Your task to perform on an android device: Clear all items from cart on newegg. Search for sony triple a on newegg, select the first entry, and add it to the cart. Image 0: 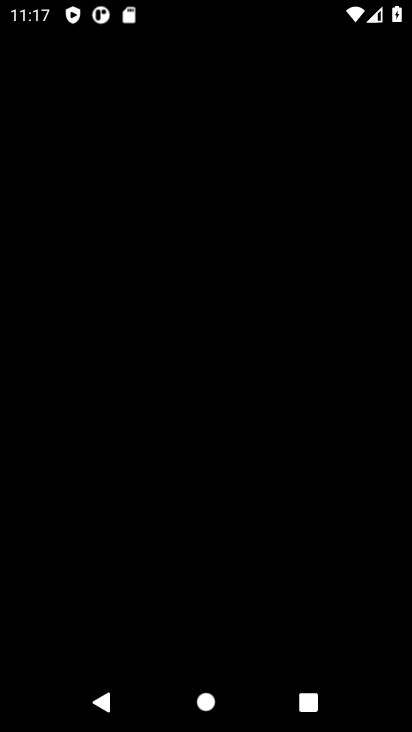
Step 0: press home button
Your task to perform on an android device: Clear all items from cart on newegg. Search for sony triple a on newegg, select the first entry, and add it to the cart. Image 1: 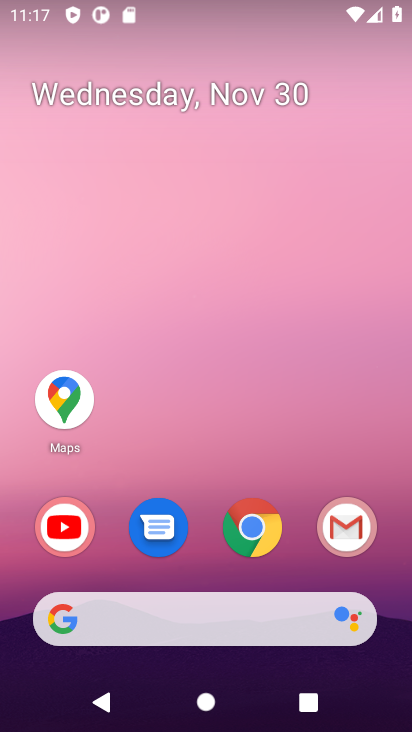
Step 1: click (258, 530)
Your task to perform on an android device: Clear all items from cart on newegg. Search for sony triple a on newegg, select the first entry, and add it to the cart. Image 2: 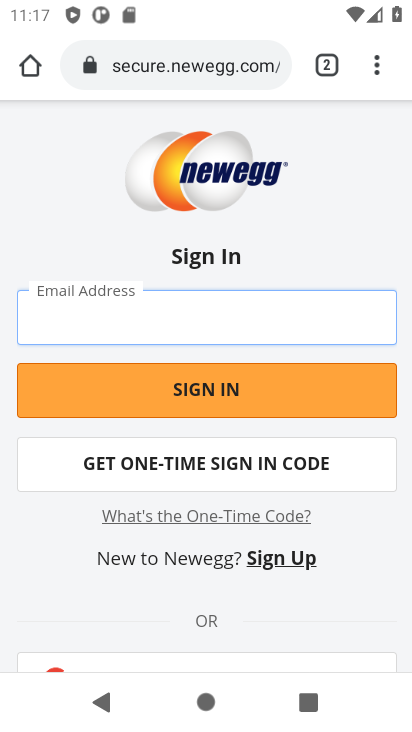
Step 2: press back button
Your task to perform on an android device: Clear all items from cart on newegg. Search for sony triple a on newegg, select the first entry, and add it to the cart. Image 3: 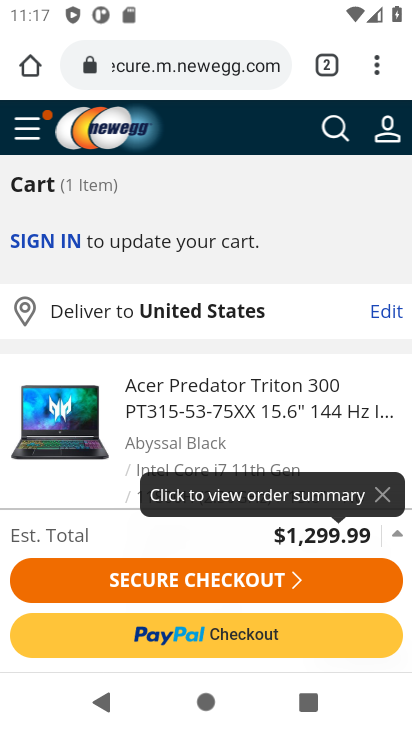
Step 3: drag from (207, 326) to (199, 194)
Your task to perform on an android device: Clear all items from cart on newegg. Search for sony triple a on newegg, select the first entry, and add it to the cart. Image 4: 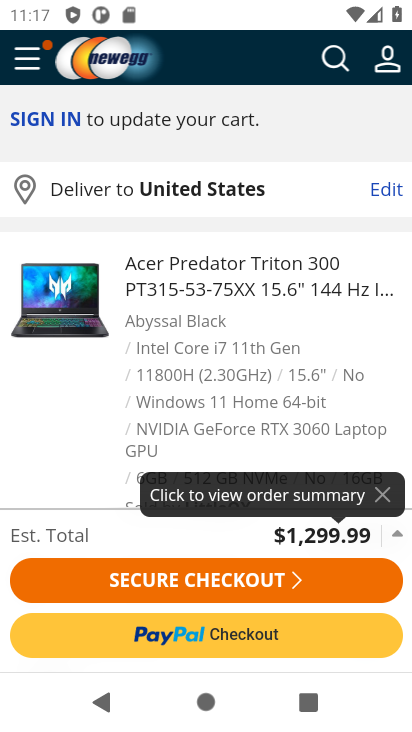
Step 4: drag from (219, 347) to (212, 183)
Your task to perform on an android device: Clear all items from cart on newegg. Search for sony triple a on newegg, select the first entry, and add it to the cart. Image 5: 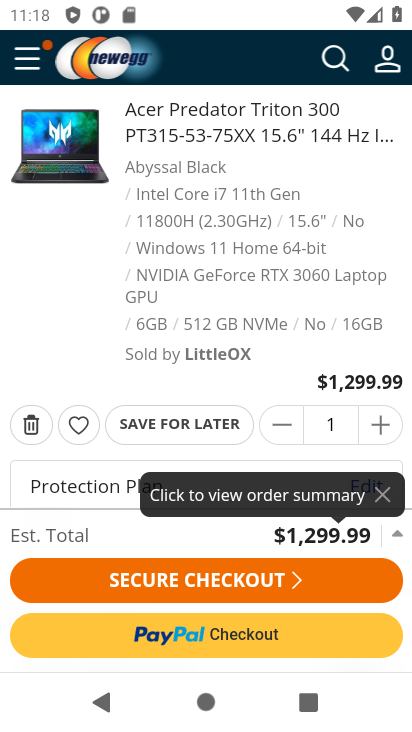
Step 5: click (29, 427)
Your task to perform on an android device: Clear all items from cart on newegg. Search for sony triple a on newegg, select the first entry, and add it to the cart. Image 6: 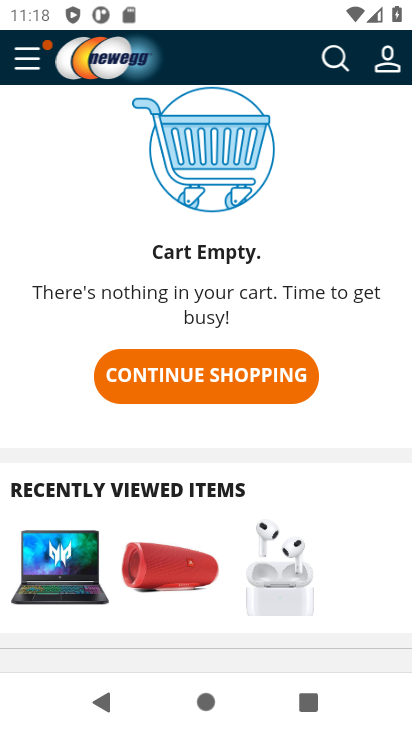
Step 6: click (333, 57)
Your task to perform on an android device: Clear all items from cart on newegg. Search for sony triple a on newegg, select the first entry, and add it to the cart. Image 7: 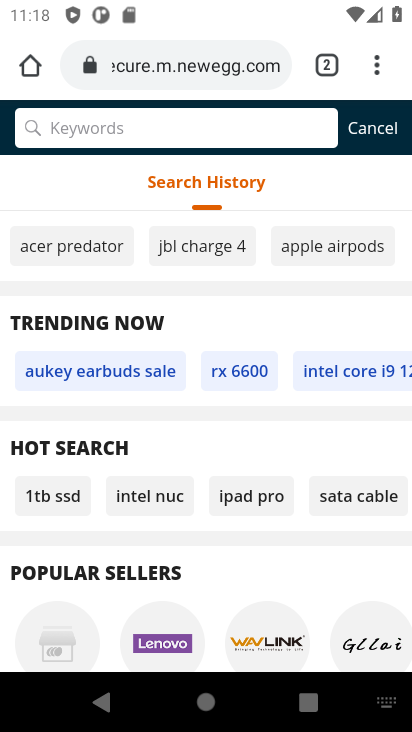
Step 7: type "sony triple a"
Your task to perform on an android device: Clear all items from cart on newegg. Search for sony triple a on newegg, select the first entry, and add it to the cart. Image 8: 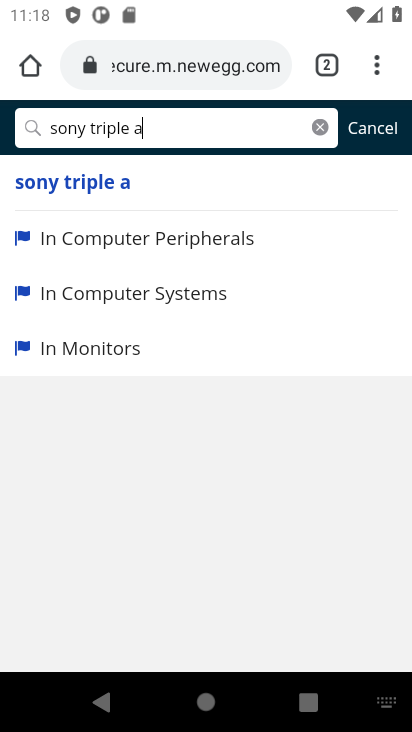
Step 8: click (70, 187)
Your task to perform on an android device: Clear all items from cart on newegg. Search for sony triple a on newegg, select the first entry, and add it to the cart. Image 9: 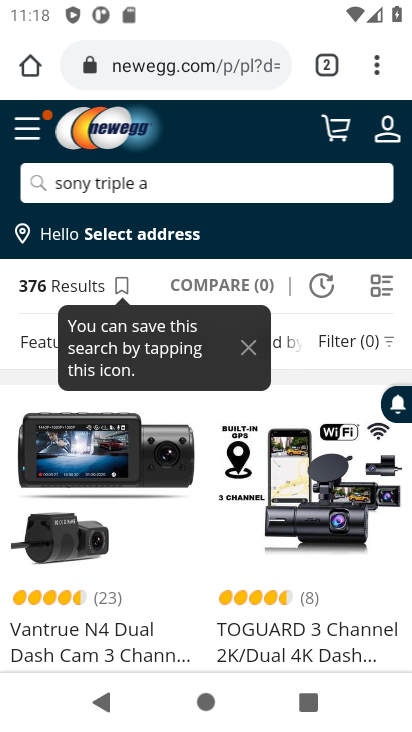
Step 9: task complete